Your task to perform on an android device: Go to wifi settings Image 0: 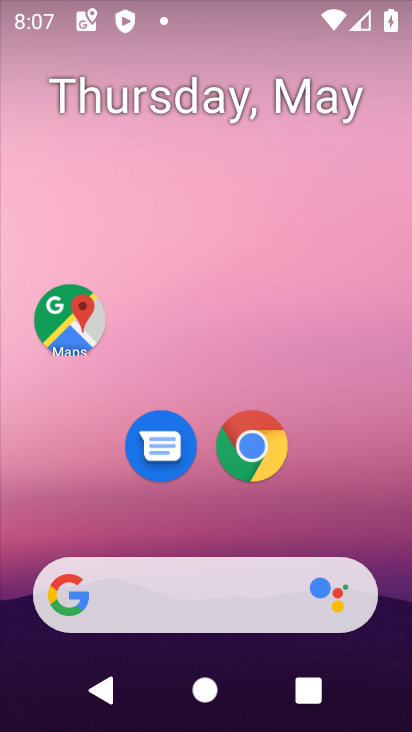
Step 0: drag from (371, 516) to (370, 118)
Your task to perform on an android device: Go to wifi settings Image 1: 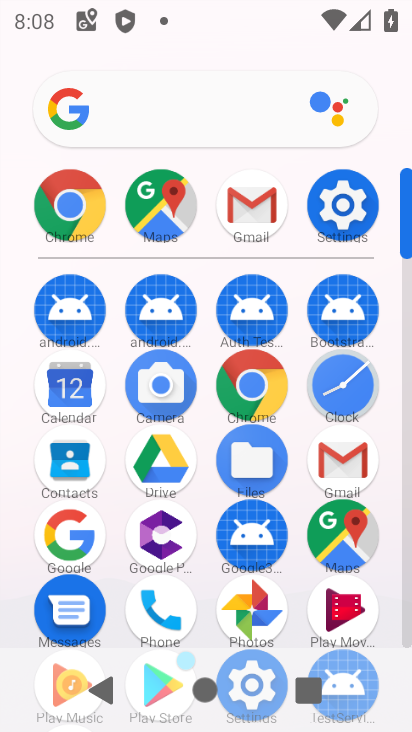
Step 1: click (342, 215)
Your task to perform on an android device: Go to wifi settings Image 2: 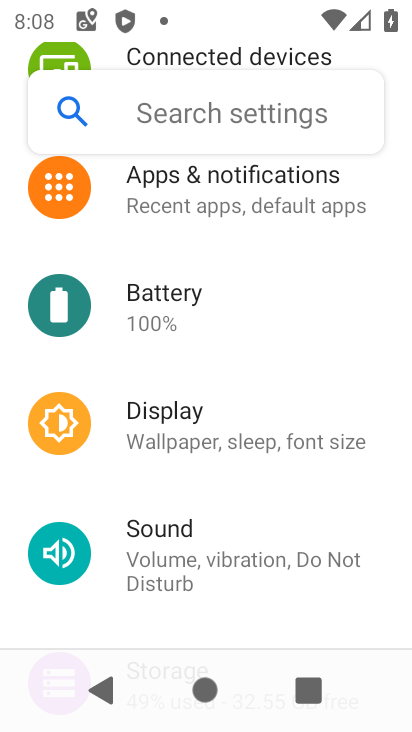
Step 2: drag from (327, 239) to (289, 552)
Your task to perform on an android device: Go to wifi settings Image 3: 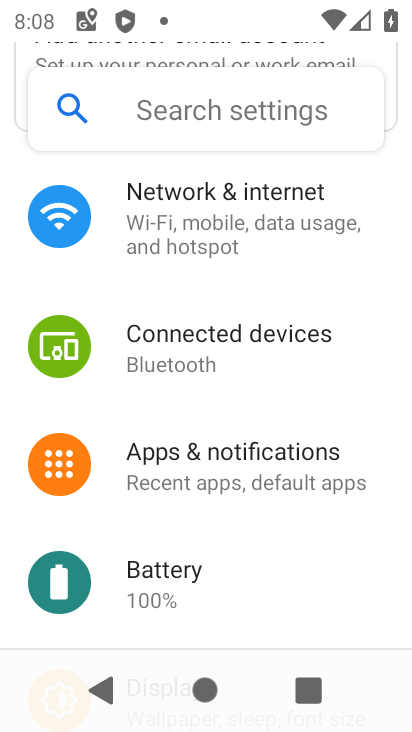
Step 3: click (277, 231)
Your task to perform on an android device: Go to wifi settings Image 4: 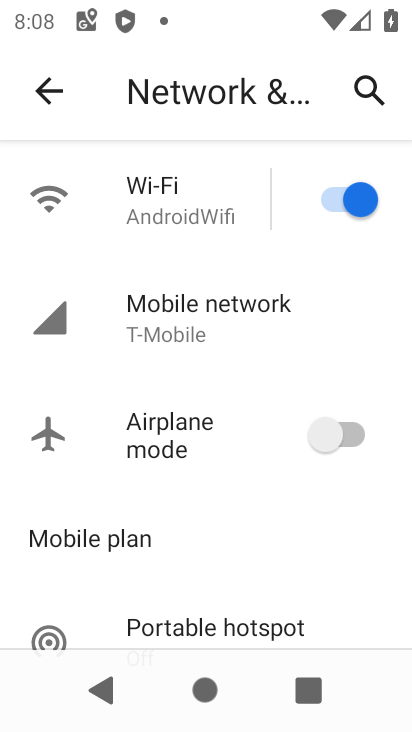
Step 4: click (236, 196)
Your task to perform on an android device: Go to wifi settings Image 5: 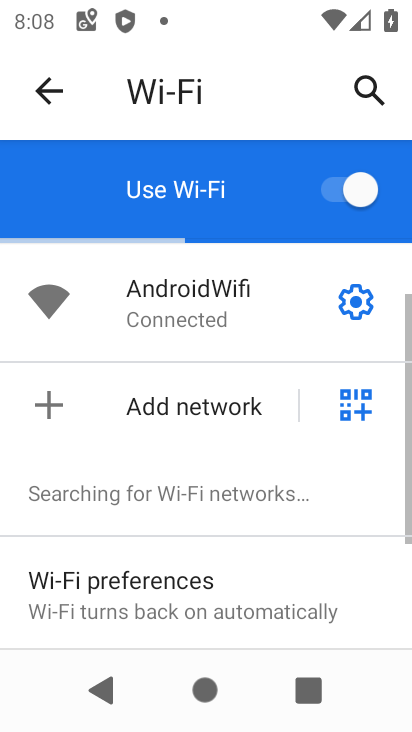
Step 5: click (356, 308)
Your task to perform on an android device: Go to wifi settings Image 6: 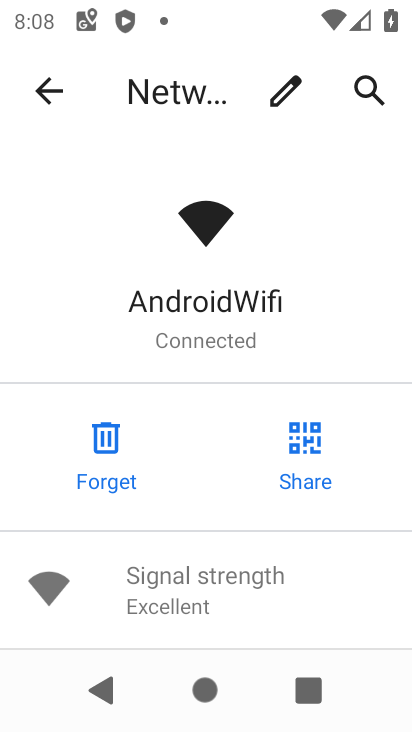
Step 6: task complete